Your task to perform on an android device: turn on the 12-hour format for clock Image 0: 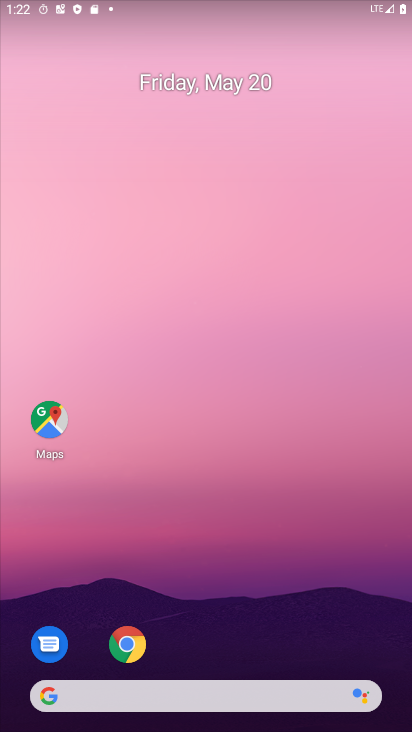
Step 0: drag from (299, 499) to (307, 60)
Your task to perform on an android device: turn on the 12-hour format for clock Image 1: 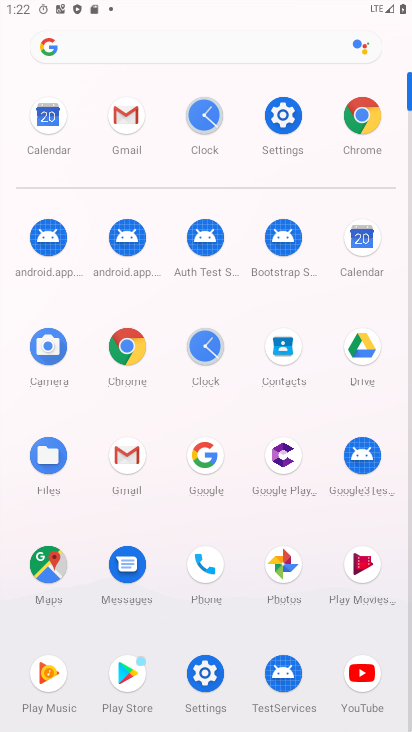
Step 1: click (188, 114)
Your task to perform on an android device: turn on the 12-hour format for clock Image 2: 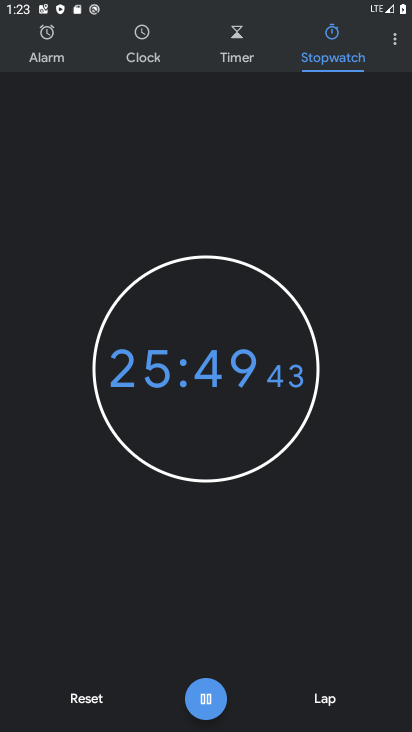
Step 2: click (388, 28)
Your task to perform on an android device: turn on the 12-hour format for clock Image 3: 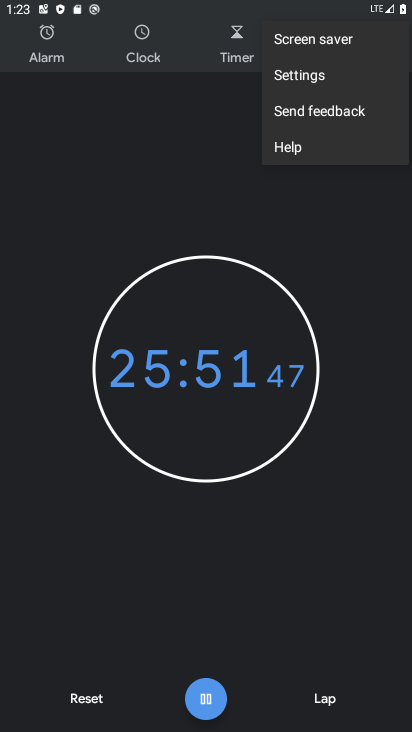
Step 3: click (288, 82)
Your task to perform on an android device: turn on the 12-hour format for clock Image 4: 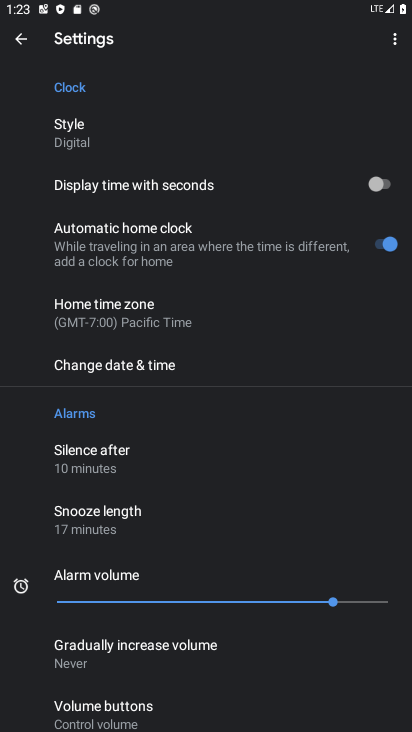
Step 4: click (131, 366)
Your task to perform on an android device: turn on the 12-hour format for clock Image 5: 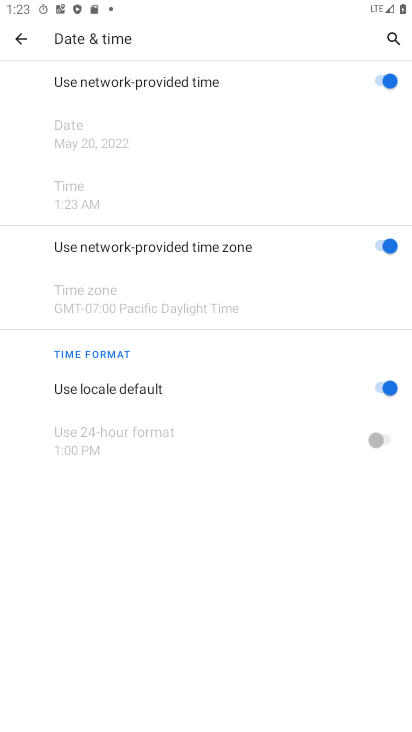
Step 5: task complete